Your task to perform on an android device: Open Google Maps and go to "Timeline" Image 0: 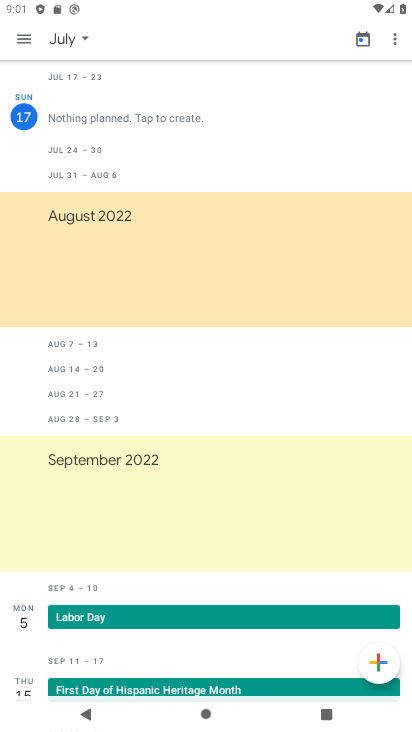
Step 0: press home button
Your task to perform on an android device: Open Google Maps and go to "Timeline" Image 1: 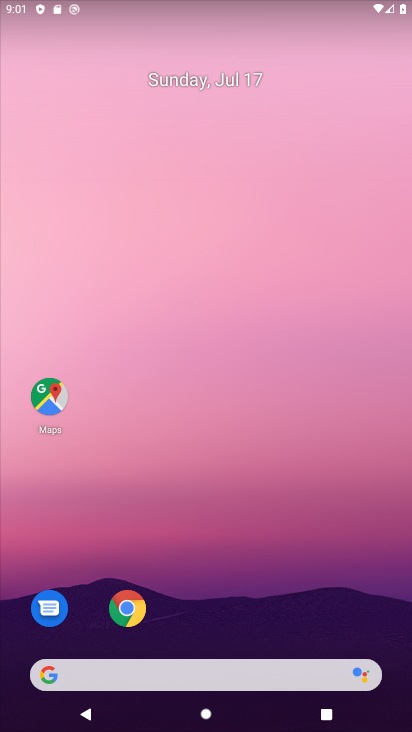
Step 1: drag from (232, 560) to (206, 20)
Your task to perform on an android device: Open Google Maps and go to "Timeline" Image 2: 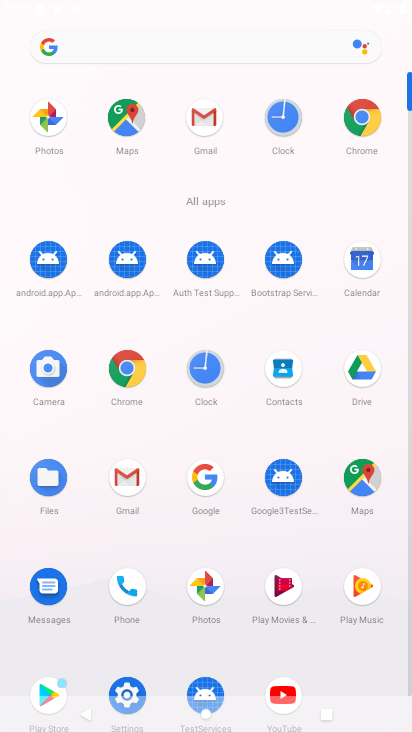
Step 2: click (383, 489)
Your task to perform on an android device: Open Google Maps and go to "Timeline" Image 3: 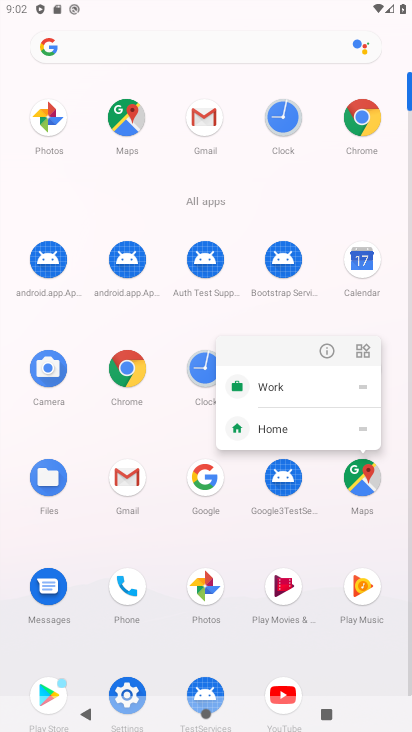
Step 3: click (383, 489)
Your task to perform on an android device: Open Google Maps and go to "Timeline" Image 4: 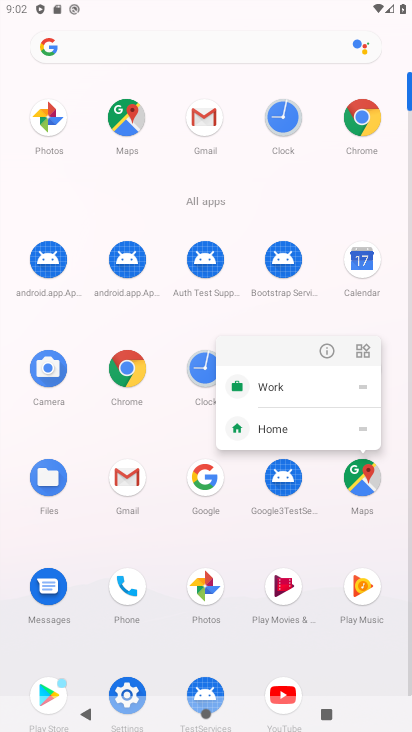
Step 4: click (367, 479)
Your task to perform on an android device: Open Google Maps and go to "Timeline" Image 5: 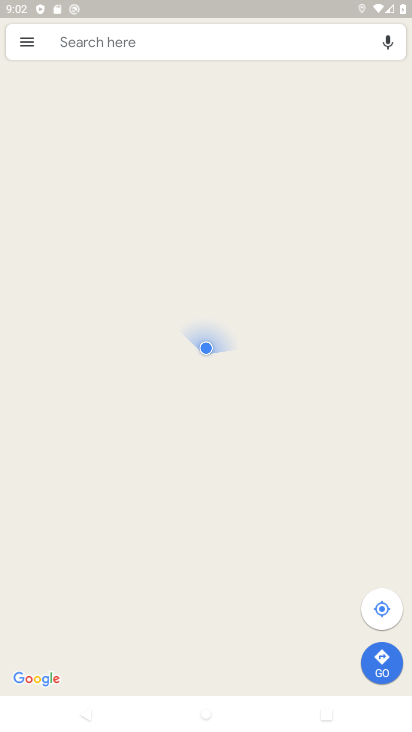
Step 5: click (24, 41)
Your task to perform on an android device: Open Google Maps and go to "Timeline" Image 6: 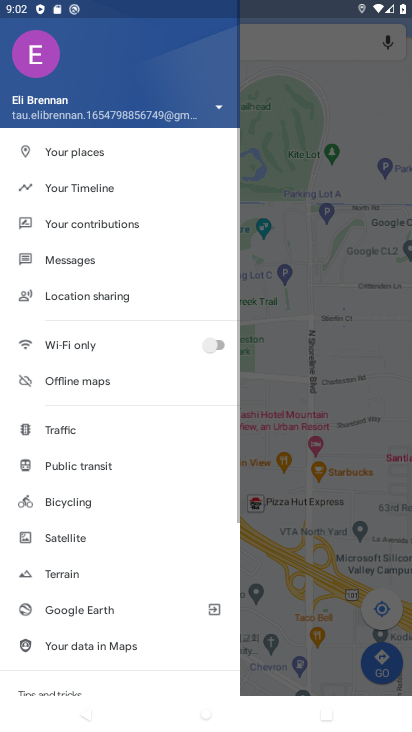
Step 6: click (60, 196)
Your task to perform on an android device: Open Google Maps and go to "Timeline" Image 7: 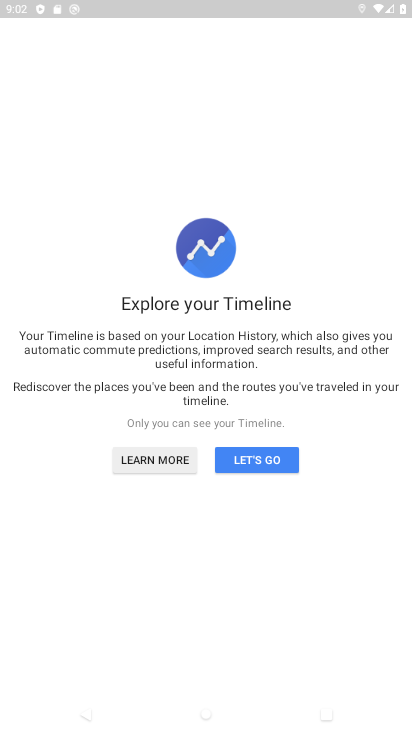
Step 7: click (255, 474)
Your task to perform on an android device: Open Google Maps and go to "Timeline" Image 8: 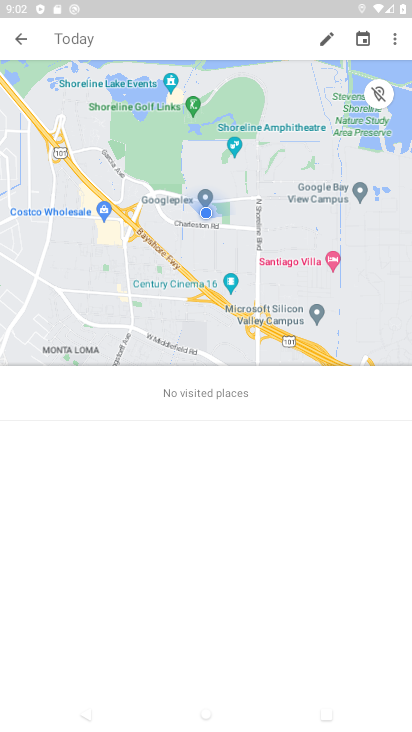
Step 8: task complete